Your task to perform on an android device: delete a single message in the gmail app Image 0: 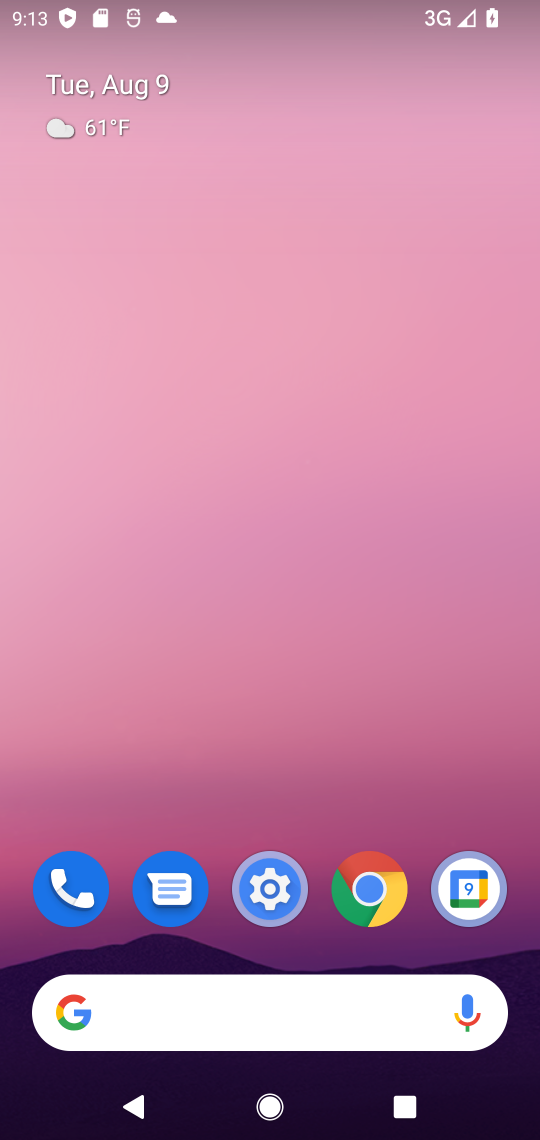
Step 0: drag from (239, 984) to (162, 172)
Your task to perform on an android device: delete a single message in the gmail app Image 1: 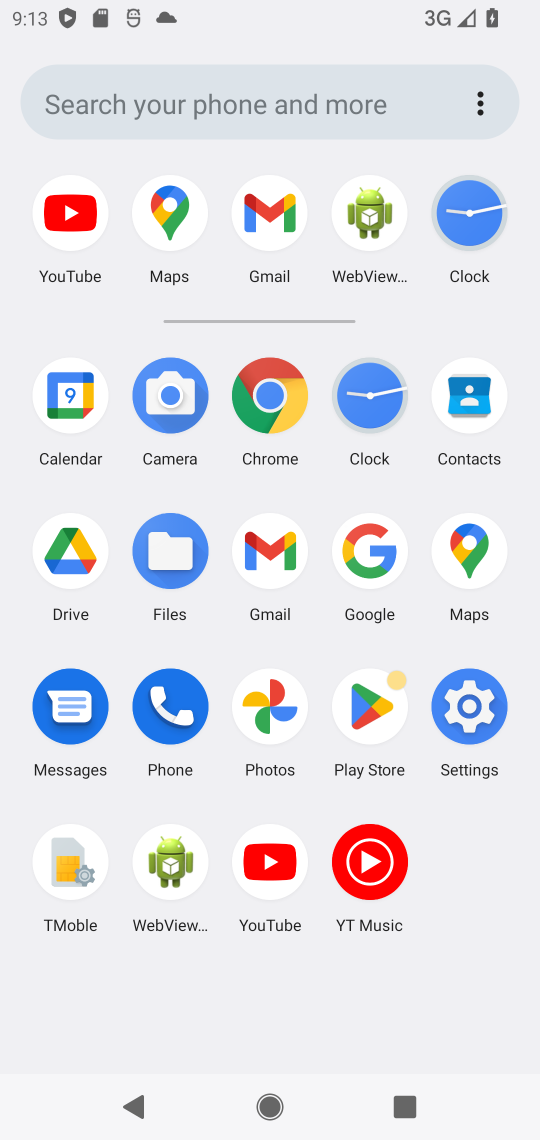
Step 1: click (255, 221)
Your task to perform on an android device: delete a single message in the gmail app Image 2: 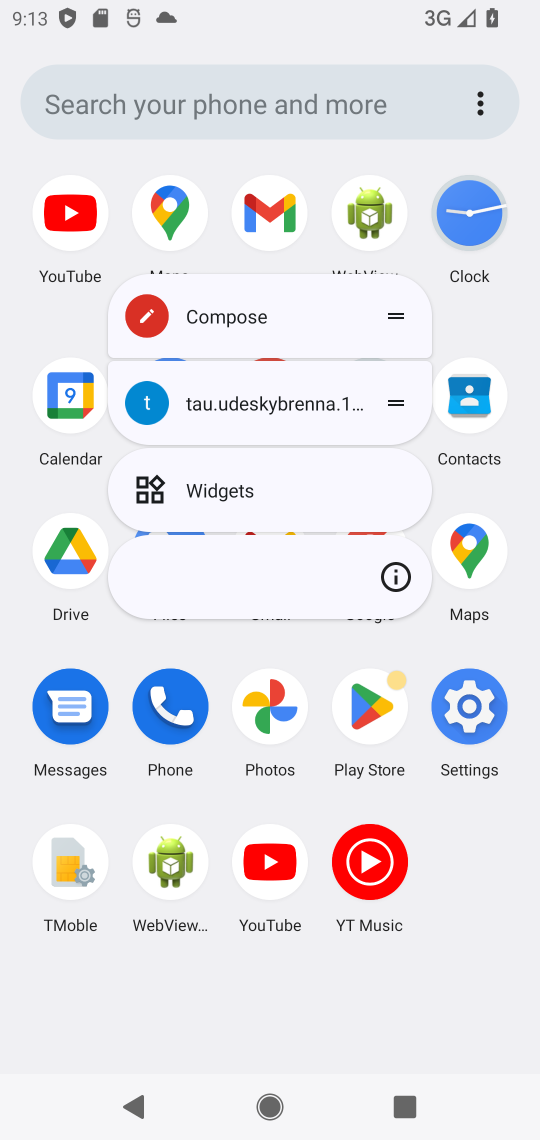
Step 2: click (240, 227)
Your task to perform on an android device: delete a single message in the gmail app Image 3: 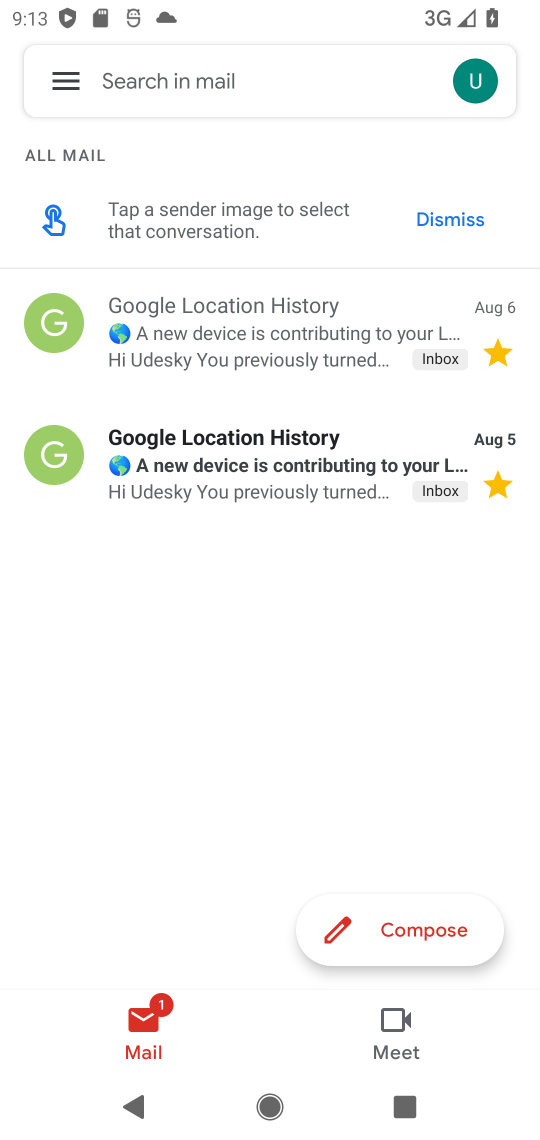
Step 3: click (151, 344)
Your task to perform on an android device: delete a single message in the gmail app Image 4: 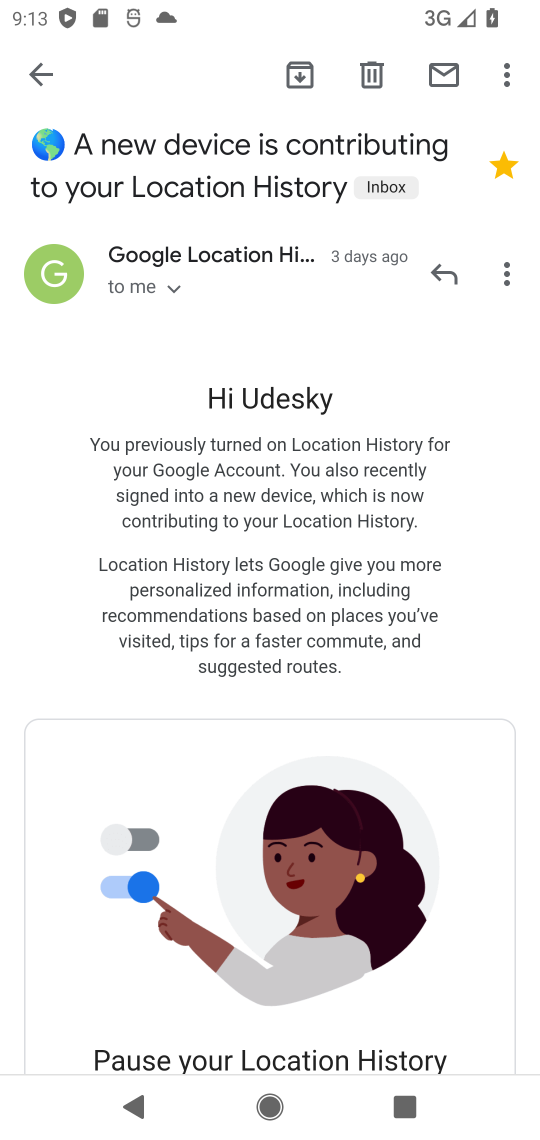
Step 4: click (374, 85)
Your task to perform on an android device: delete a single message in the gmail app Image 5: 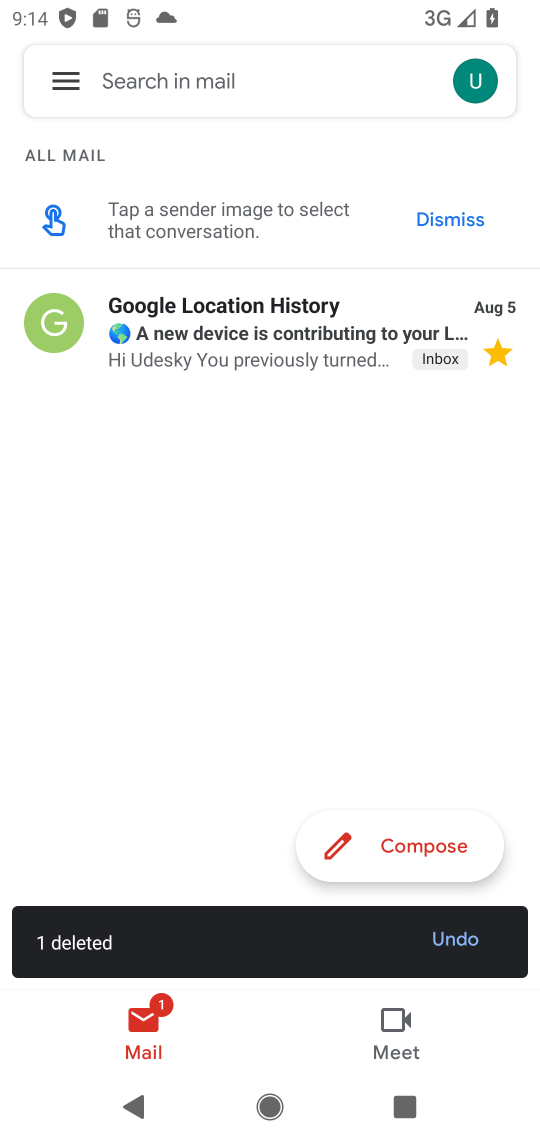
Step 5: task complete